Your task to perform on an android device: turn on improve location accuracy Image 0: 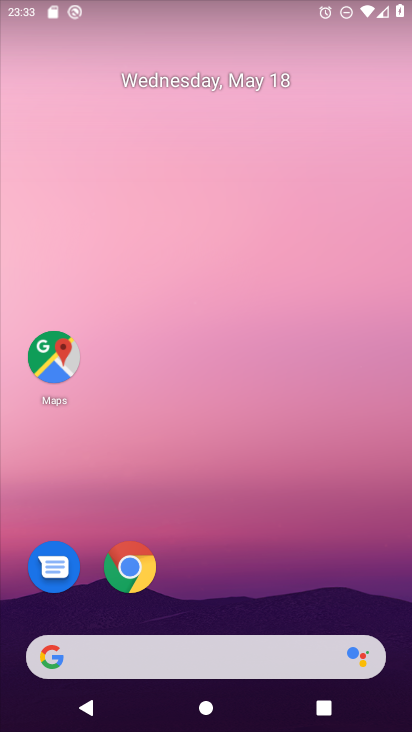
Step 0: drag from (248, 678) to (284, 273)
Your task to perform on an android device: turn on improve location accuracy Image 1: 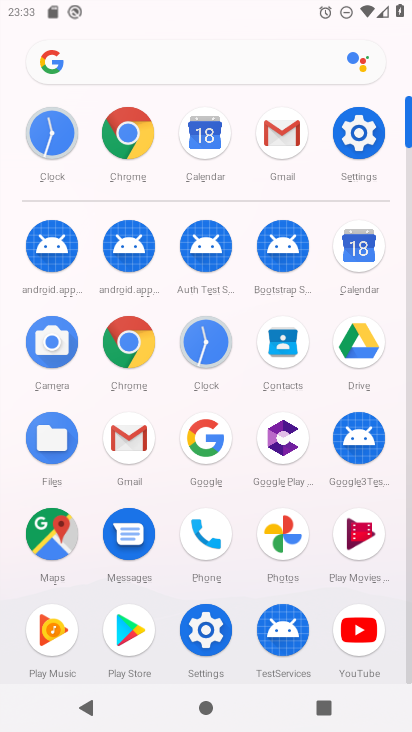
Step 1: click (204, 630)
Your task to perform on an android device: turn on improve location accuracy Image 2: 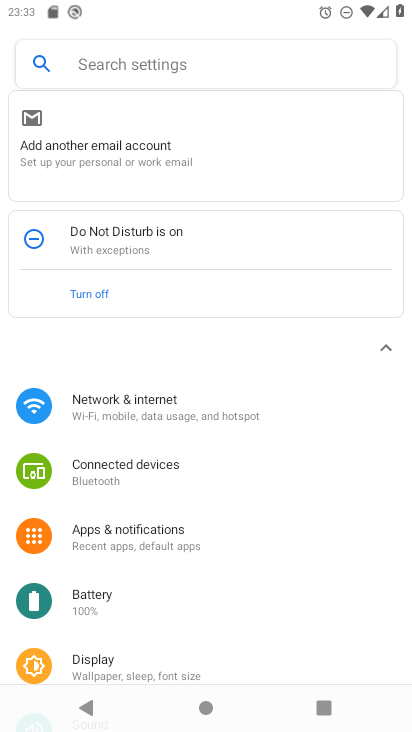
Step 2: click (151, 64)
Your task to perform on an android device: turn on improve location accuracy Image 3: 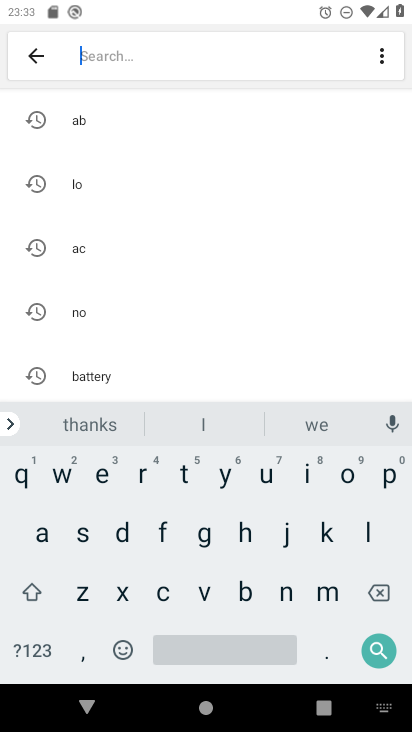
Step 3: click (372, 530)
Your task to perform on an android device: turn on improve location accuracy Image 4: 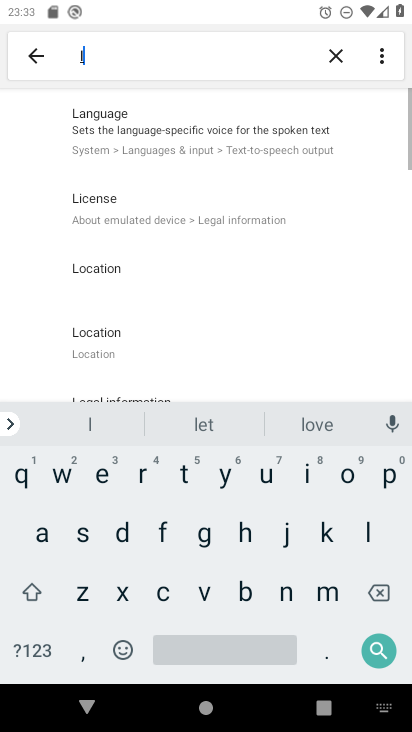
Step 4: click (350, 483)
Your task to perform on an android device: turn on improve location accuracy Image 5: 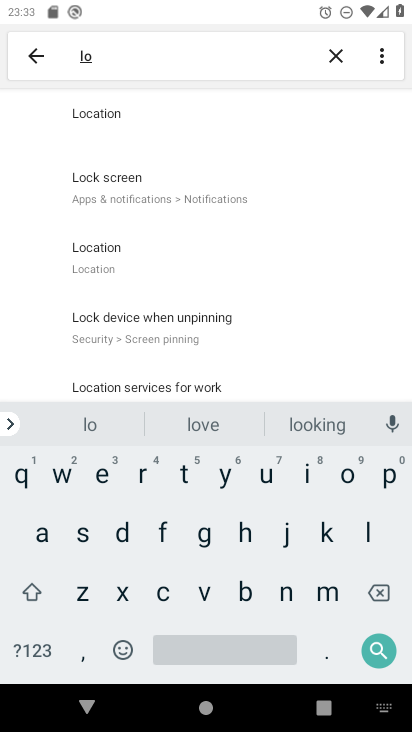
Step 5: click (121, 274)
Your task to perform on an android device: turn on improve location accuracy Image 6: 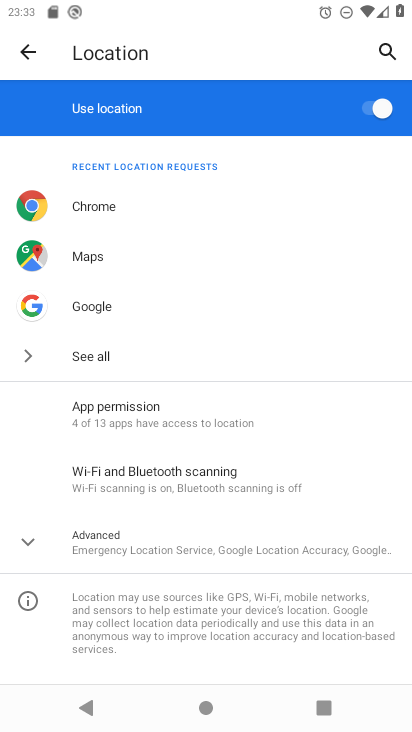
Step 6: click (27, 545)
Your task to perform on an android device: turn on improve location accuracy Image 7: 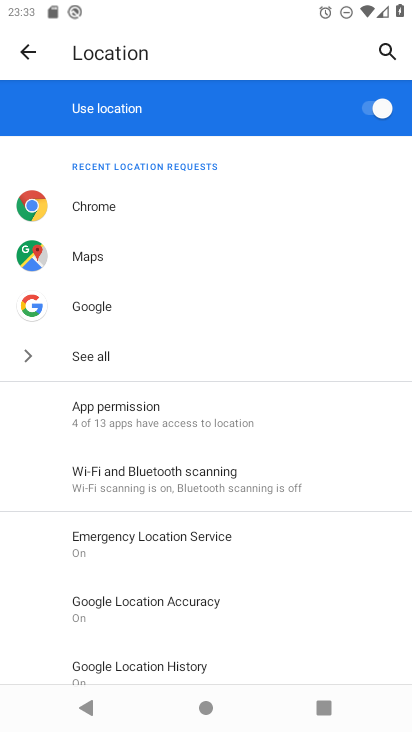
Step 7: click (150, 604)
Your task to perform on an android device: turn on improve location accuracy Image 8: 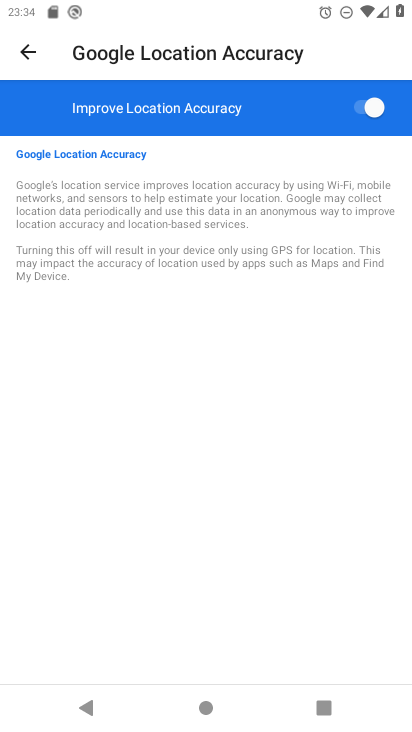
Step 8: click (355, 100)
Your task to perform on an android device: turn on improve location accuracy Image 9: 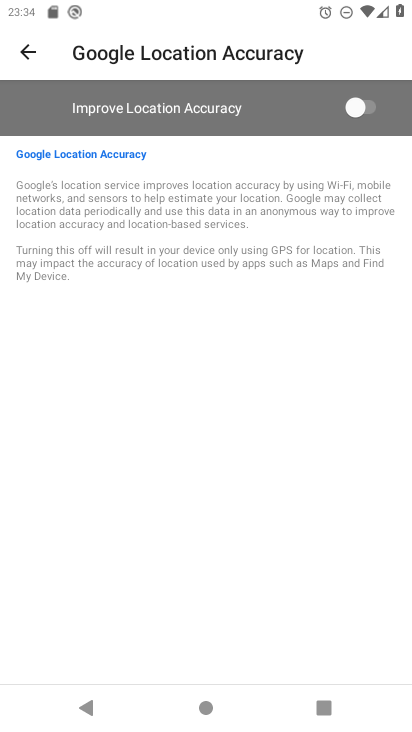
Step 9: click (355, 100)
Your task to perform on an android device: turn on improve location accuracy Image 10: 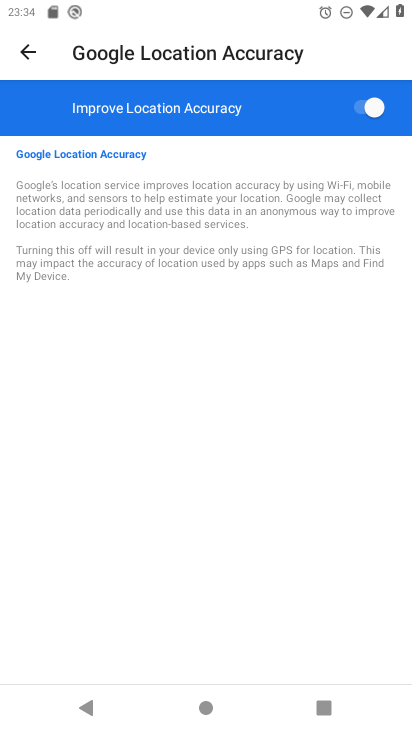
Step 10: task complete